Your task to perform on an android device: change notifications settings Image 0: 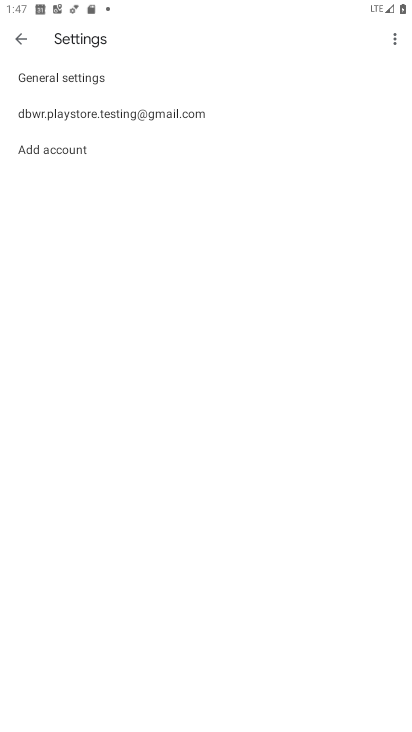
Step 0: press home button
Your task to perform on an android device: change notifications settings Image 1: 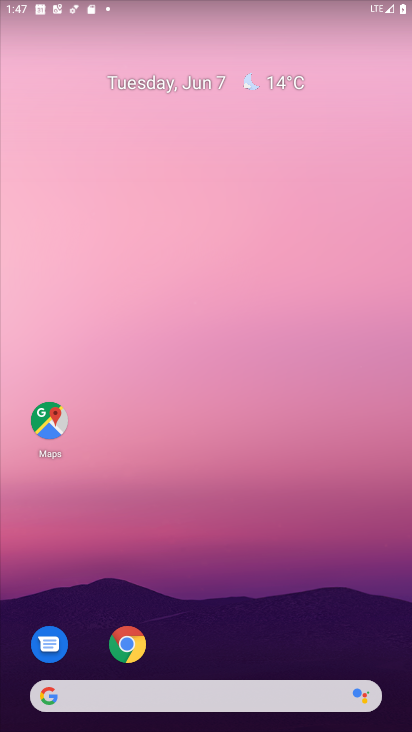
Step 1: drag from (195, 308) to (177, 16)
Your task to perform on an android device: change notifications settings Image 2: 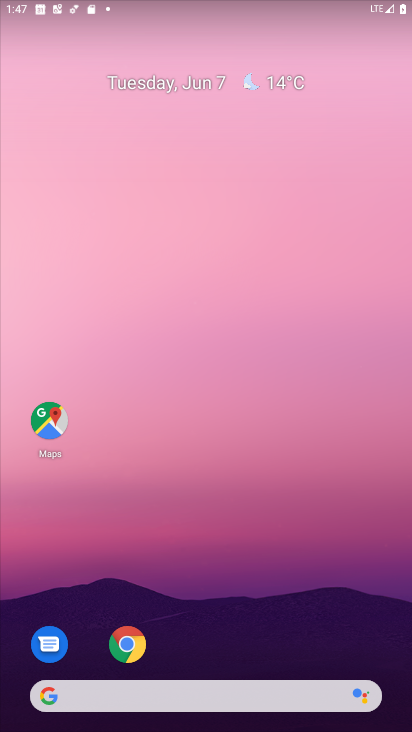
Step 2: drag from (249, 591) to (249, 6)
Your task to perform on an android device: change notifications settings Image 3: 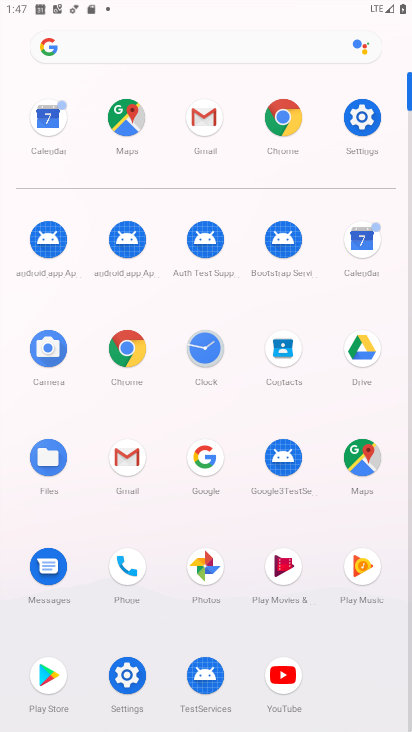
Step 3: click (368, 118)
Your task to perform on an android device: change notifications settings Image 4: 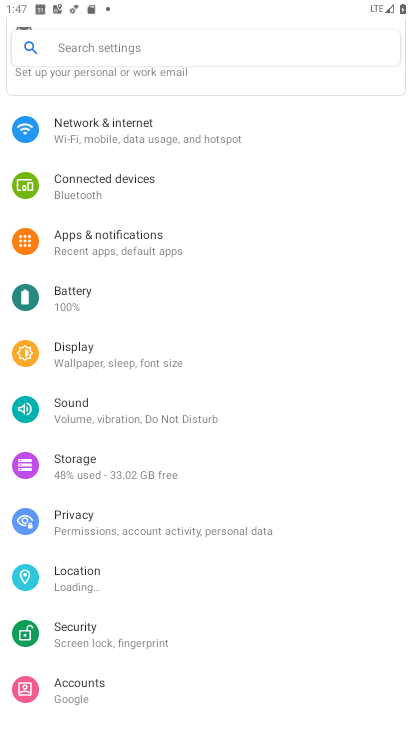
Step 4: click (119, 258)
Your task to perform on an android device: change notifications settings Image 5: 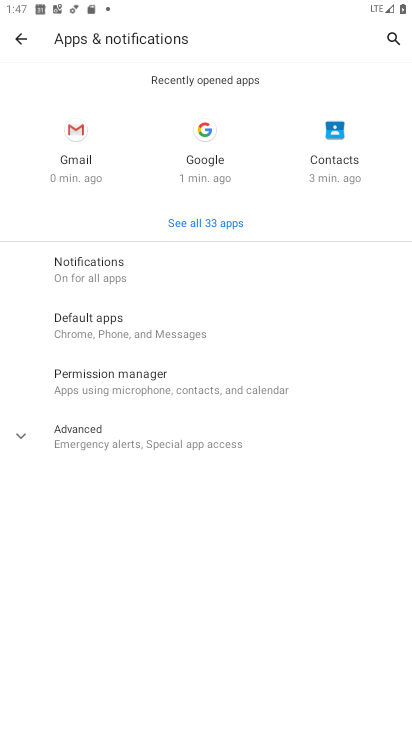
Step 5: click (142, 268)
Your task to perform on an android device: change notifications settings Image 6: 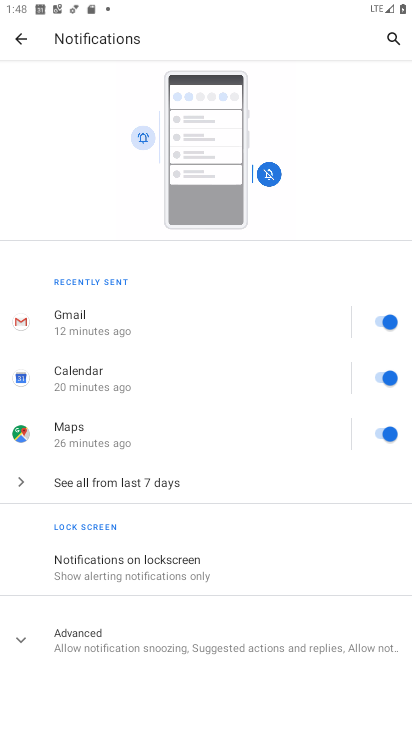
Step 6: click (142, 478)
Your task to perform on an android device: change notifications settings Image 7: 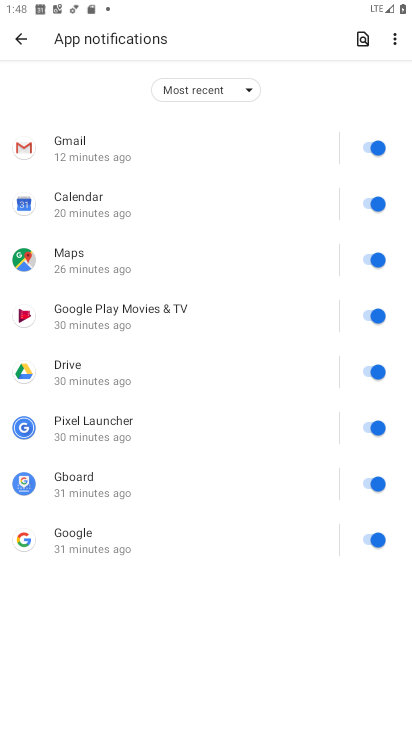
Step 7: click (375, 152)
Your task to perform on an android device: change notifications settings Image 8: 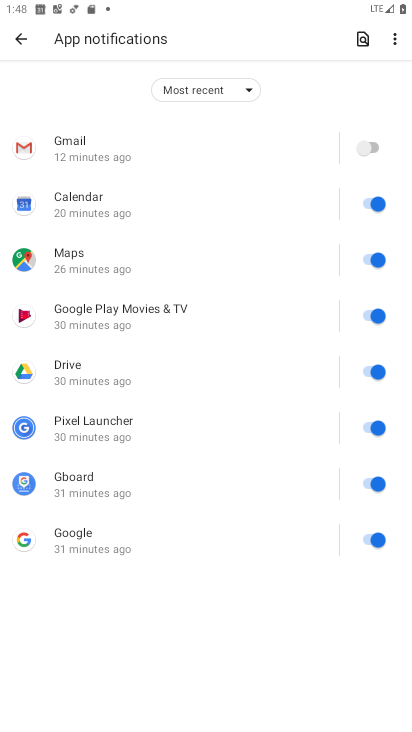
Step 8: click (367, 209)
Your task to perform on an android device: change notifications settings Image 9: 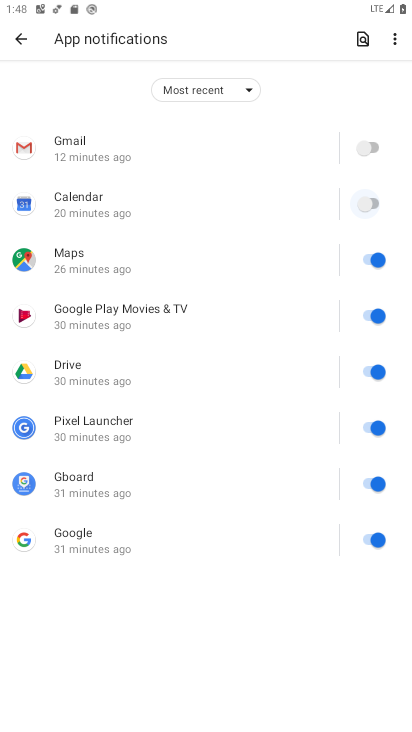
Step 9: click (385, 254)
Your task to perform on an android device: change notifications settings Image 10: 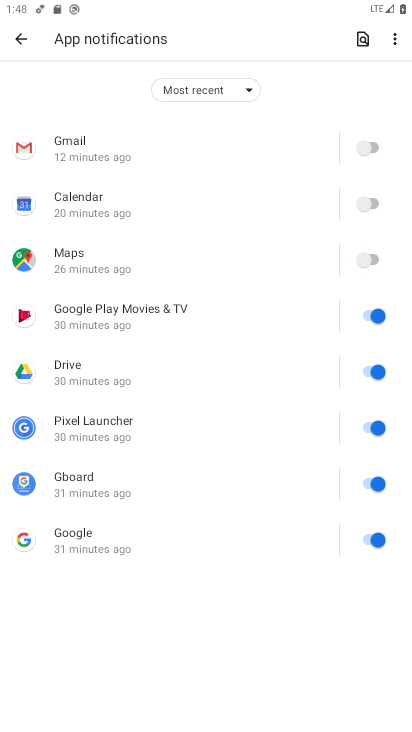
Step 10: click (383, 314)
Your task to perform on an android device: change notifications settings Image 11: 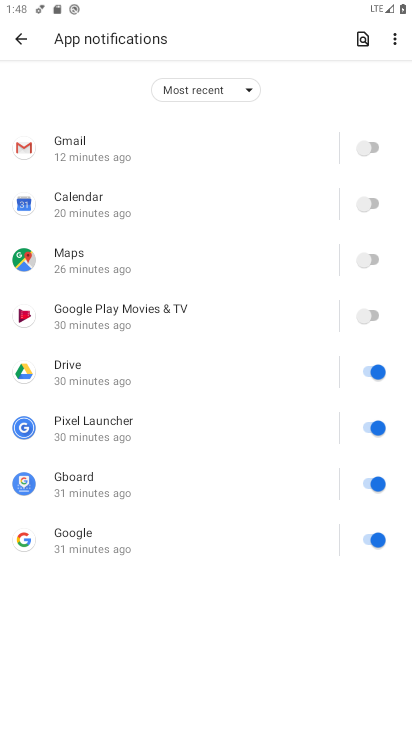
Step 11: click (375, 377)
Your task to perform on an android device: change notifications settings Image 12: 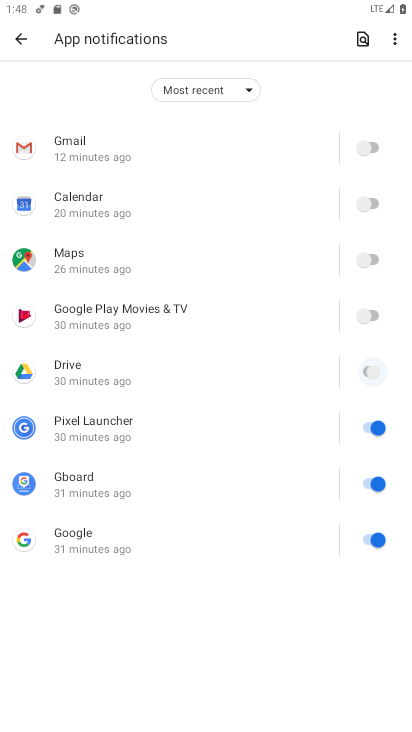
Step 12: click (371, 410)
Your task to perform on an android device: change notifications settings Image 13: 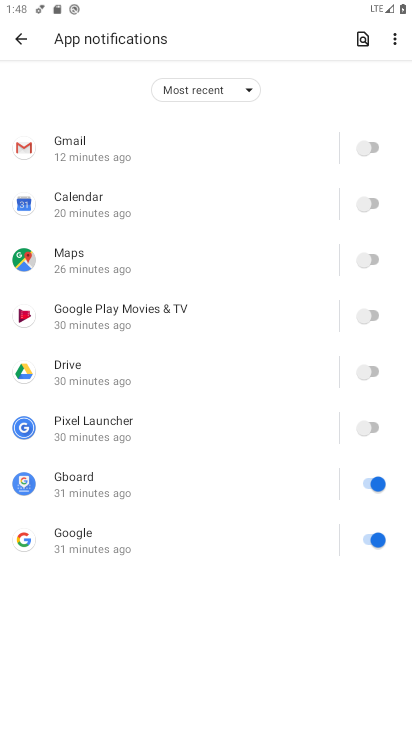
Step 13: click (370, 477)
Your task to perform on an android device: change notifications settings Image 14: 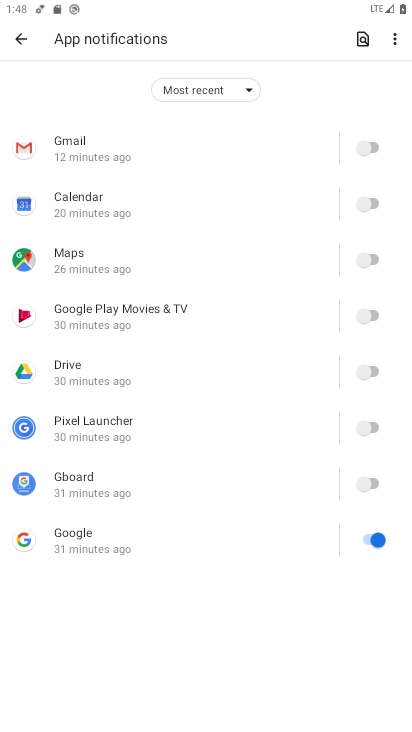
Step 14: click (374, 529)
Your task to perform on an android device: change notifications settings Image 15: 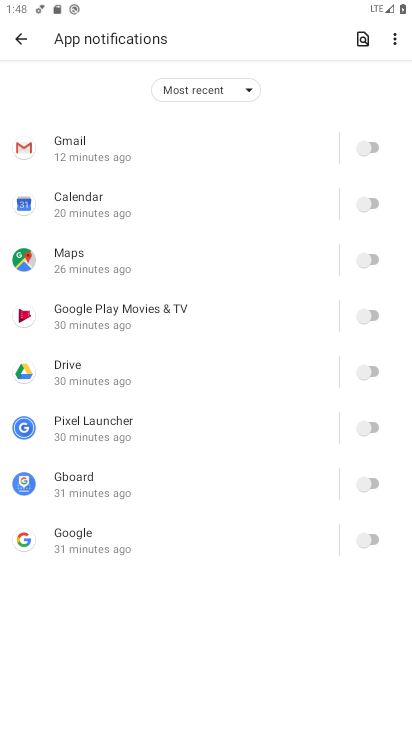
Step 15: click (16, 53)
Your task to perform on an android device: change notifications settings Image 16: 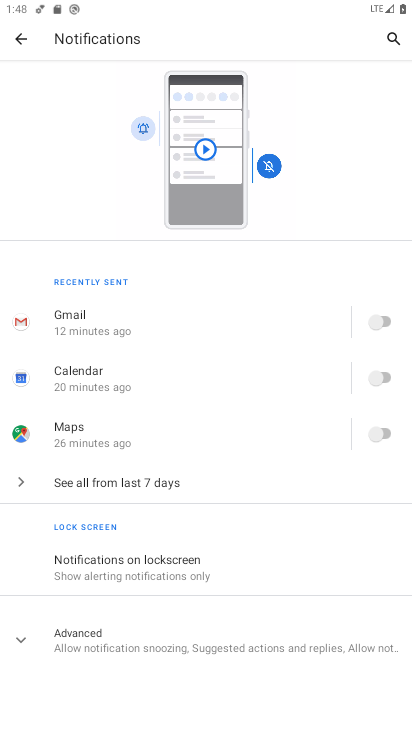
Step 16: click (157, 580)
Your task to perform on an android device: change notifications settings Image 17: 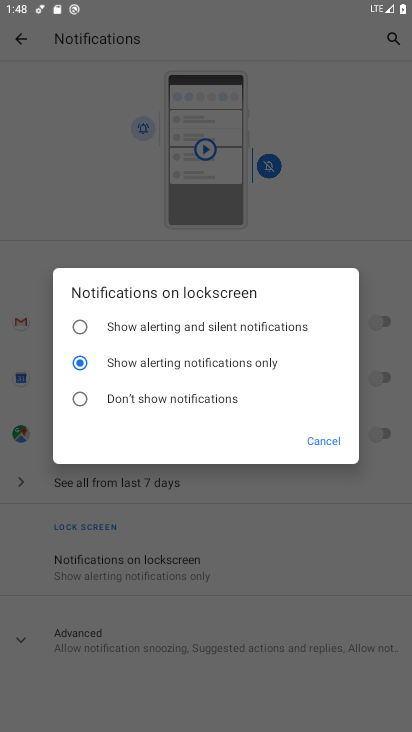
Step 17: click (143, 325)
Your task to perform on an android device: change notifications settings Image 18: 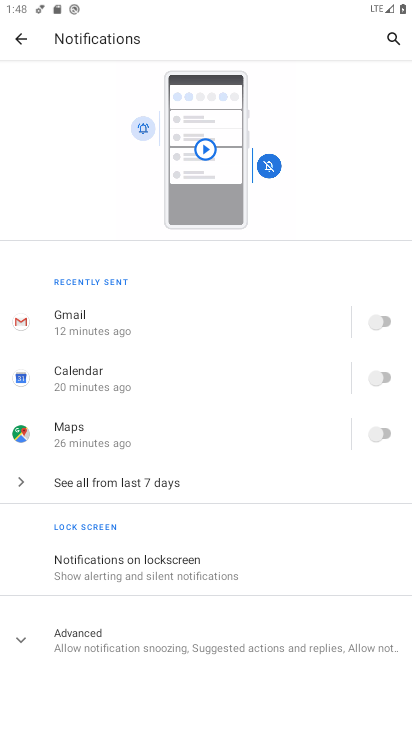
Step 18: click (113, 631)
Your task to perform on an android device: change notifications settings Image 19: 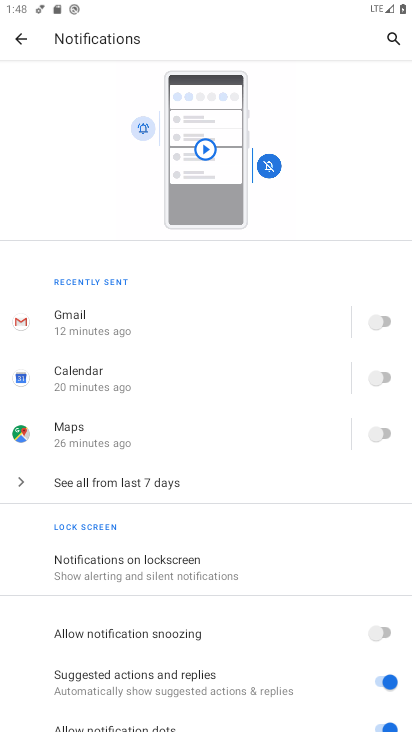
Step 19: drag from (331, 657) to (331, 267)
Your task to perform on an android device: change notifications settings Image 20: 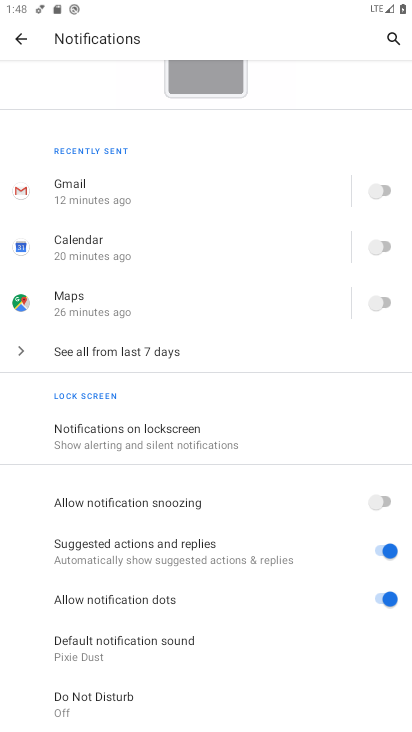
Step 20: click (383, 506)
Your task to perform on an android device: change notifications settings Image 21: 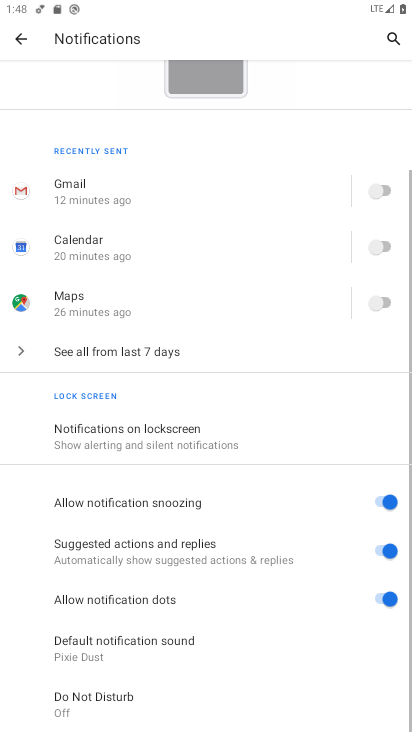
Step 21: click (396, 545)
Your task to perform on an android device: change notifications settings Image 22: 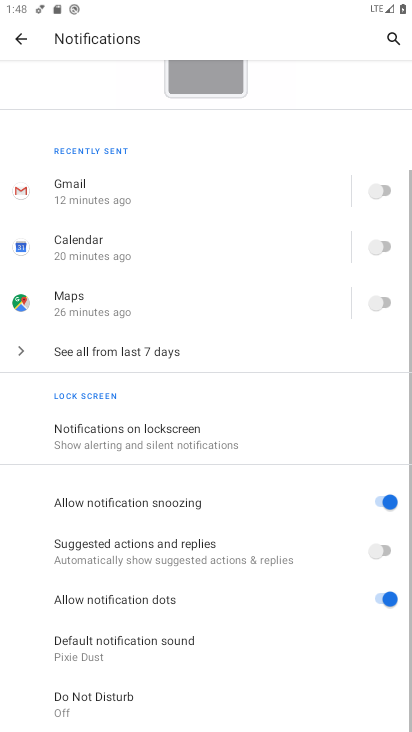
Step 22: click (373, 591)
Your task to perform on an android device: change notifications settings Image 23: 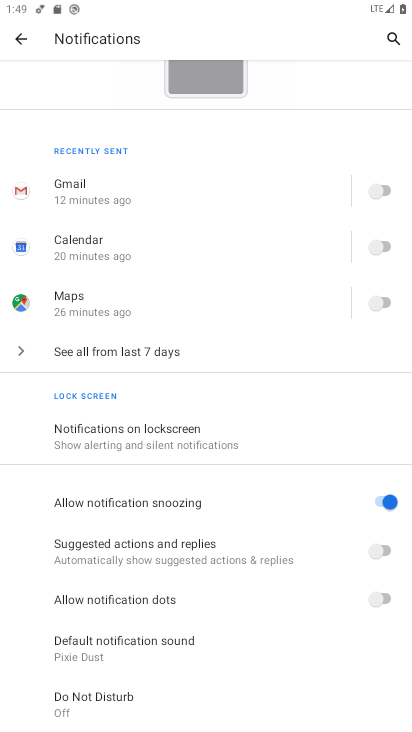
Step 23: task complete